Your task to perform on an android device: Open my contact list Image 0: 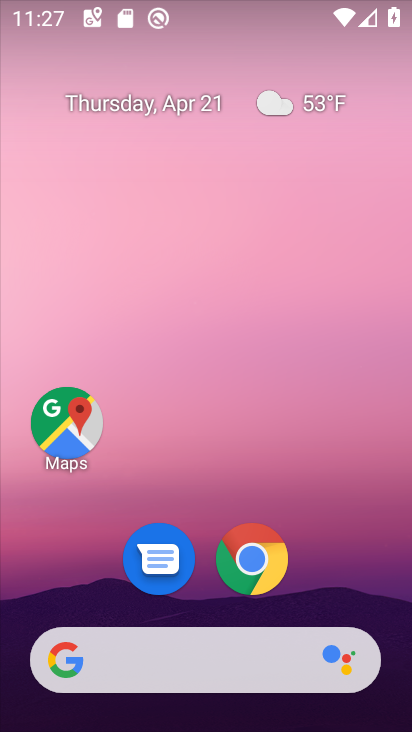
Step 0: drag from (382, 589) to (411, 40)
Your task to perform on an android device: Open my contact list Image 1: 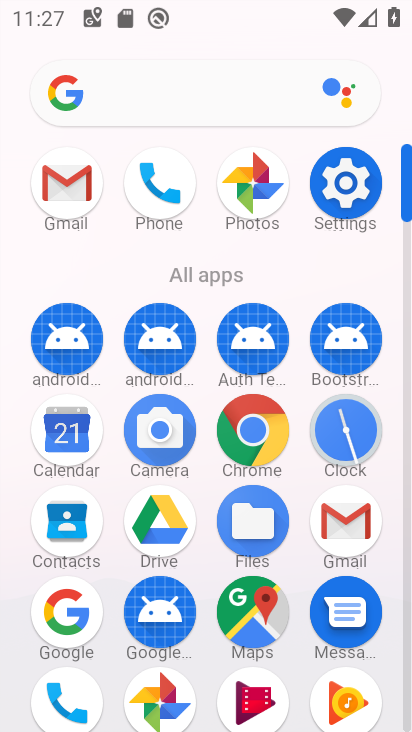
Step 1: click (56, 525)
Your task to perform on an android device: Open my contact list Image 2: 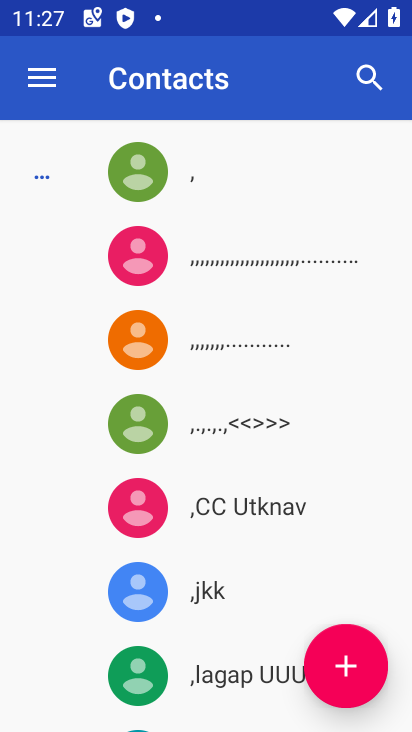
Step 2: task complete